Your task to perform on an android device: choose inbox layout in the gmail app Image 0: 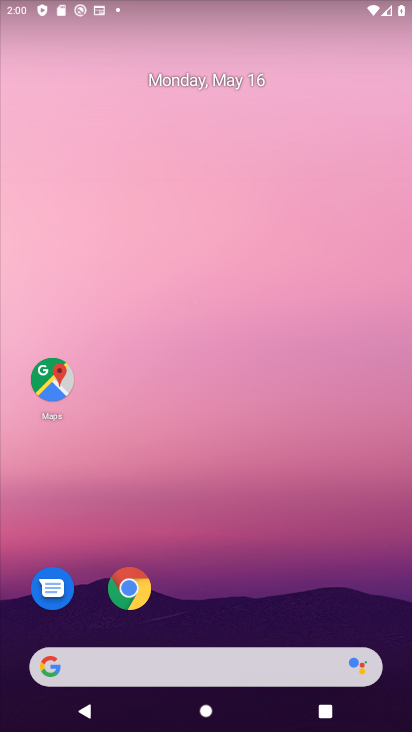
Step 0: drag from (218, 725) to (195, 142)
Your task to perform on an android device: choose inbox layout in the gmail app Image 1: 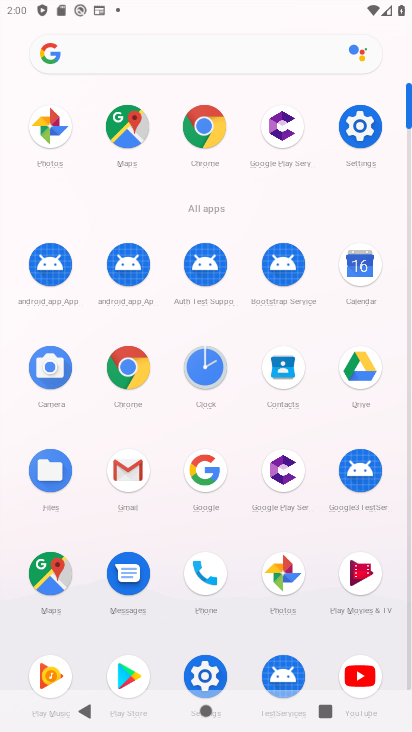
Step 1: click (131, 473)
Your task to perform on an android device: choose inbox layout in the gmail app Image 2: 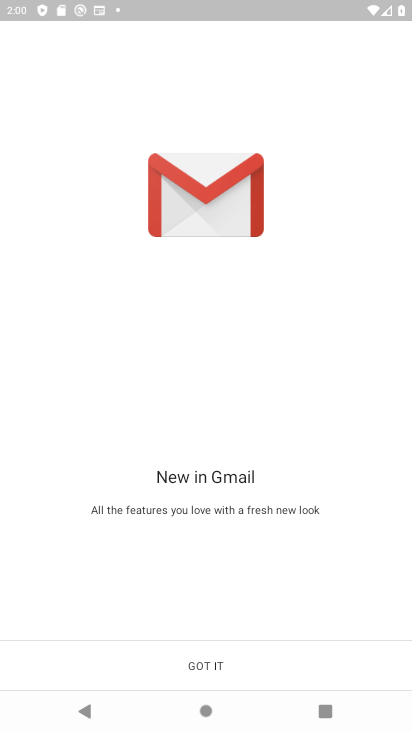
Step 2: click (214, 660)
Your task to perform on an android device: choose inbox layout in the gmail app Image 3: 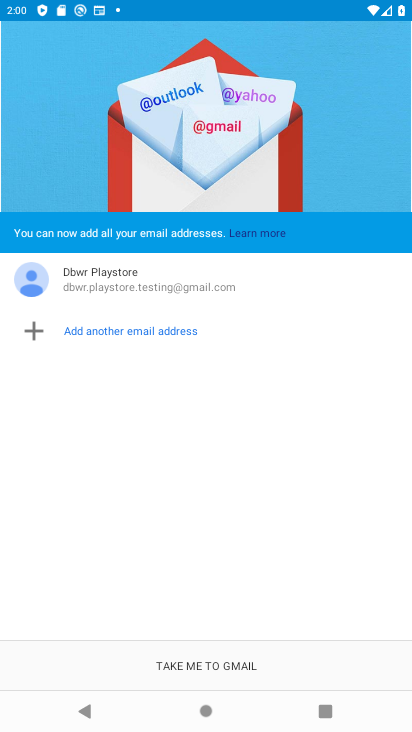
Step 3: click (214, 660)
Your task to perform on an android device: choose inbox layout in the gmail app Image 4: 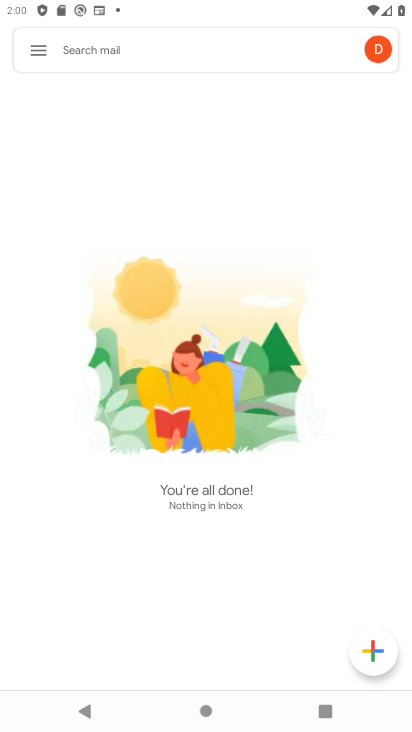
Step 4: click (38, 46)
Your task to perform on an android device: choose inbox layout in the gmail app Image 5: 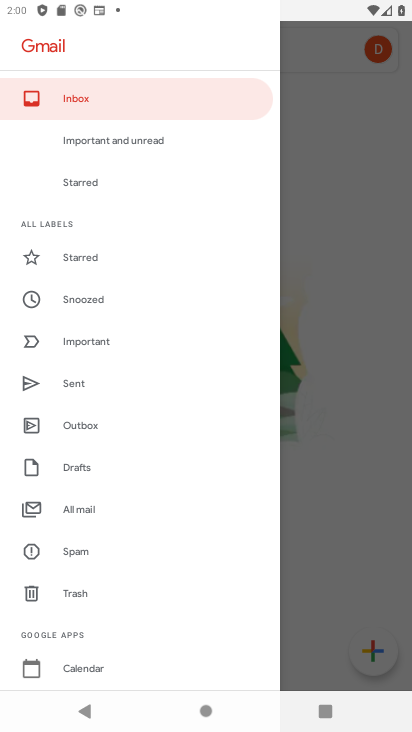
Step 5: drag from (99, 647) to (97, 281)
Your task to perform on an android device: choose inbox layout in the gmail app Image 6: 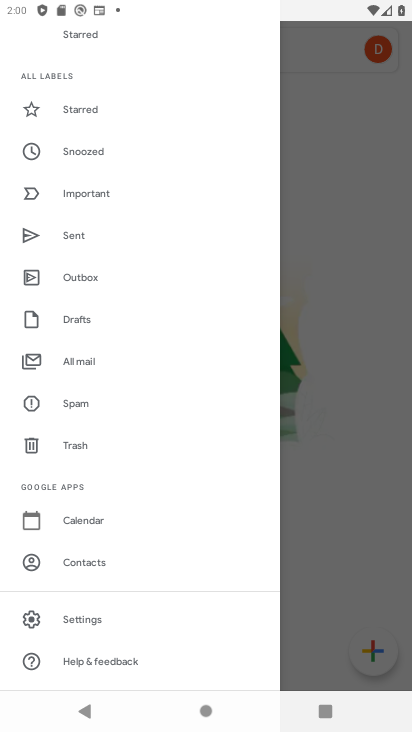
Step 6: click (85, 620)
Your task to perform on an android device: choose inbox layout in the gmail app Image 7: 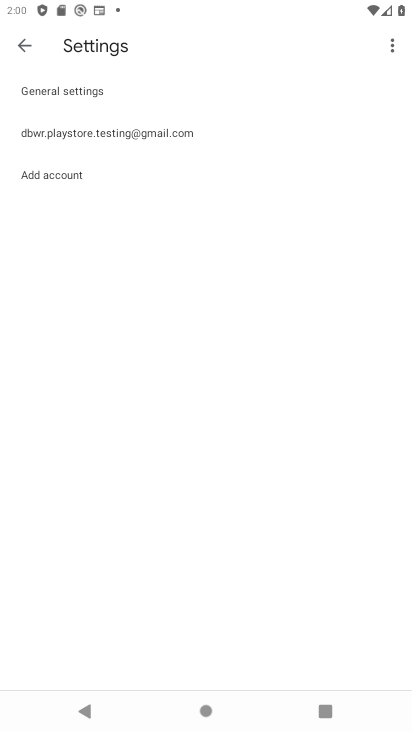
Step 7: click (121, 130)
Your task to perform on an android device: choose inbox layout in the gmail app Image 8: 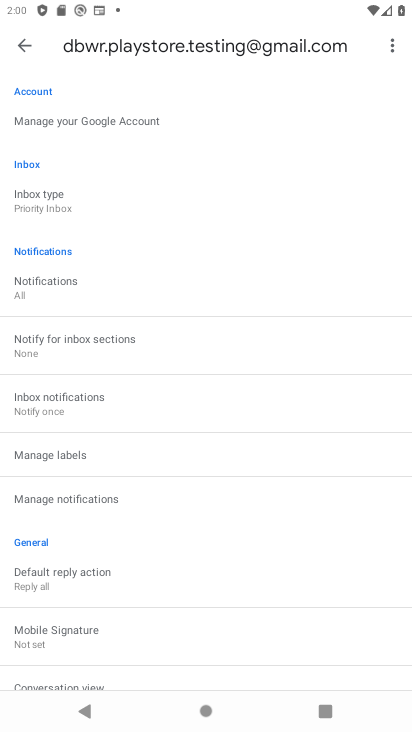
Step 8: click (42, 200)
Your task to perform on an android device: choose inbox layout in the gmail app Image 9: 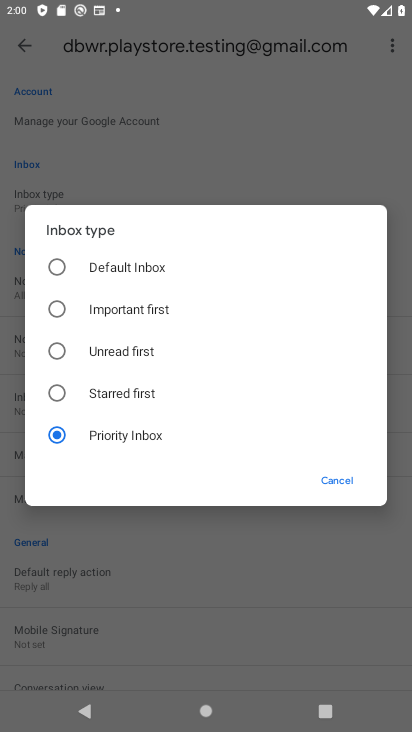
Step 9: click (56, 258)
Your task to perform on an android device: choose inbox layout in the gmail app Image 10: 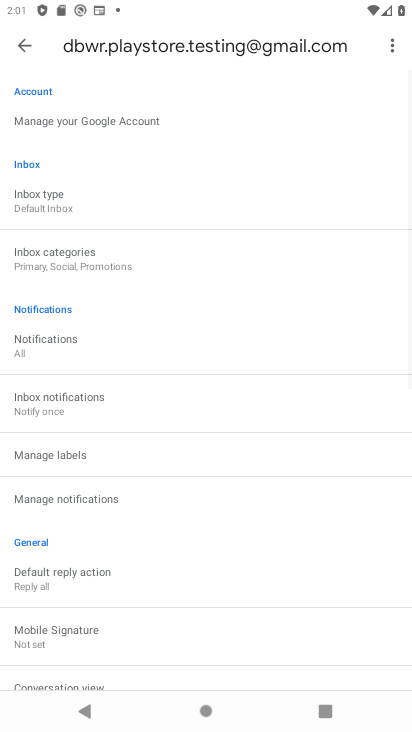
Step 10: task complete